Your task to perform on an android device: search for starred emails in the gmail app Image 0: 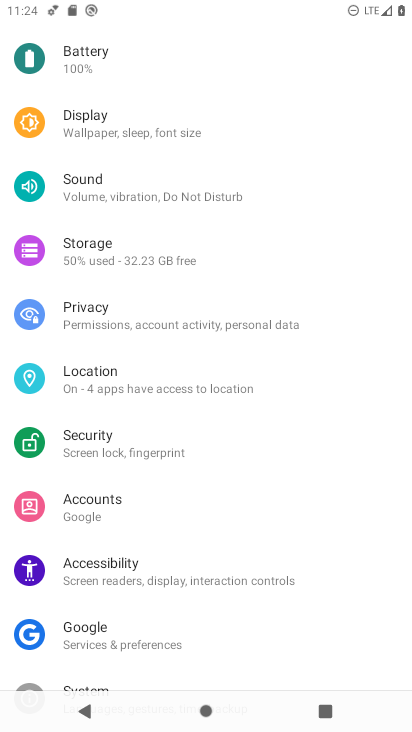
Step 0: press home button
Your task to perform on an android device: search for starred emails in the gmail app Image 1: 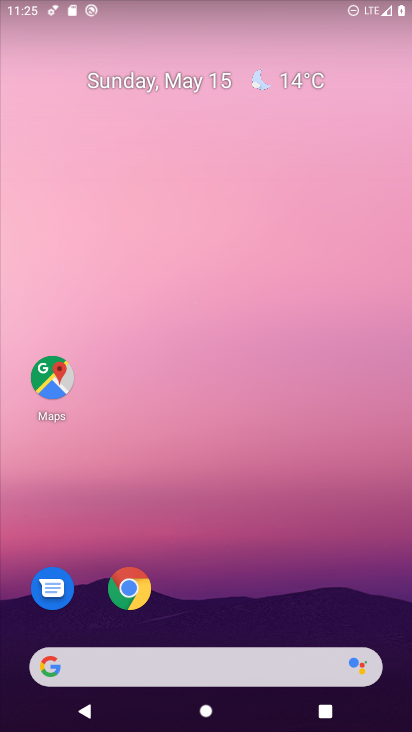
Step 1: drag from (218, 622) to (275, 42)
Your task to perform on an android device: search for starred emails in the gmail app Image 2: 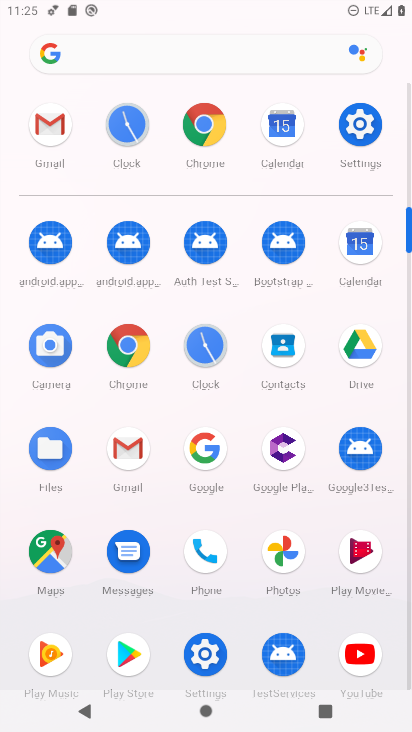
Step 2: click (120, 445)
Your task to perform on an android device: search for starred emails in the gmail app Image 3: 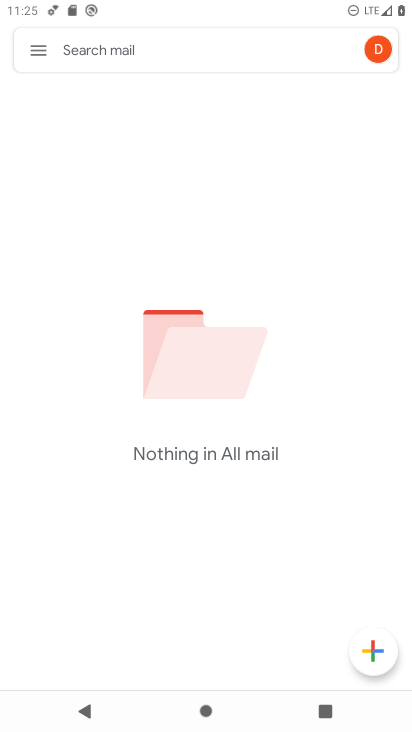
Step 3: click (32, 47)
Your task to perform on an android device: search for starred emails in the gmail app Image 4: 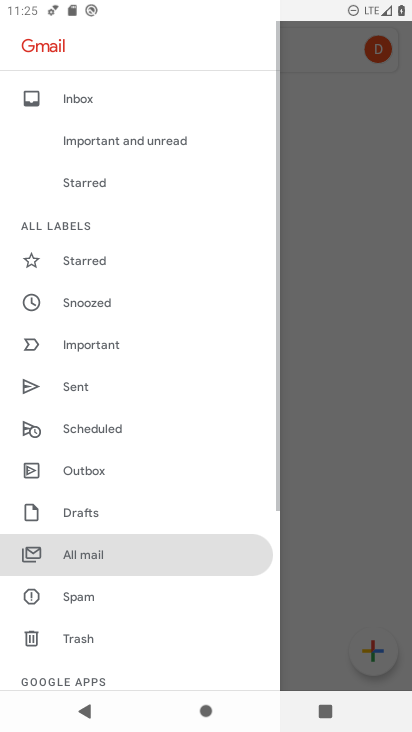
Step 4: click (102, 255)
Your task to perform on an android device: search for starred emails in the gmail app Image 5: 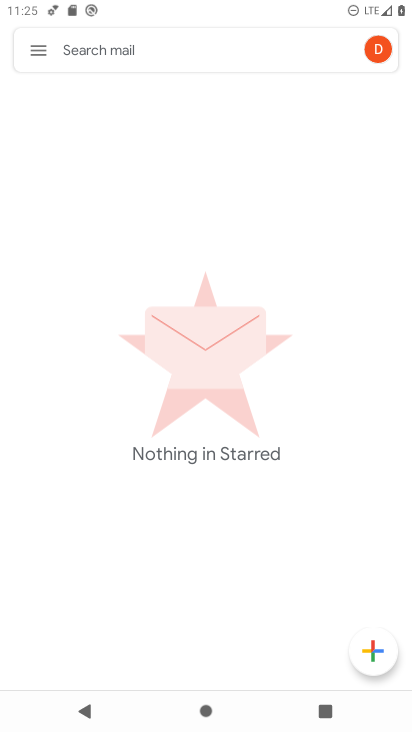
Step 5: task complete